Your task to perform on an android device: What is the news today? Image 0: 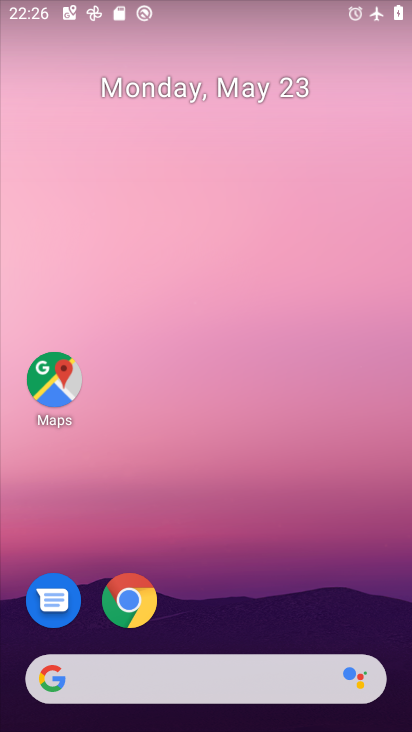
Step 0: drag from (0, 314) to (296, 321)
Your task to perform on an android device: What is the news today? Image 1: 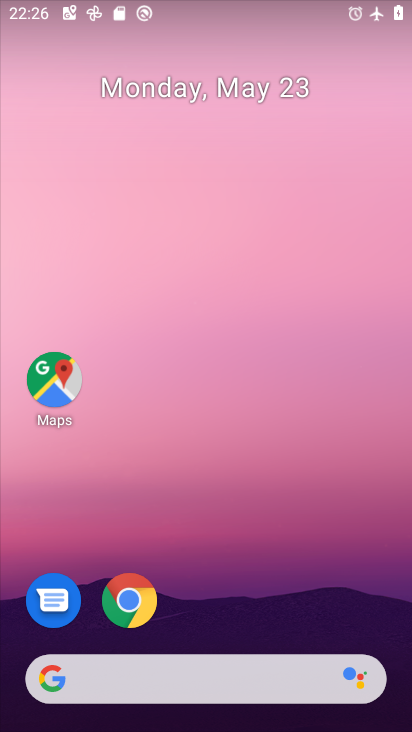
Step 1: task complete